Your task to perform on an android device: turn on data saver in the chrome app Image 0: 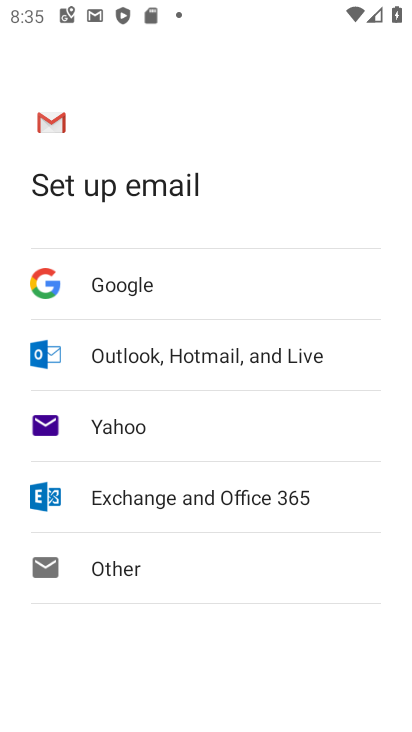
Step 0: press home button
Your task to perform on an android device: turn on data saver in the chrome app Image 1: 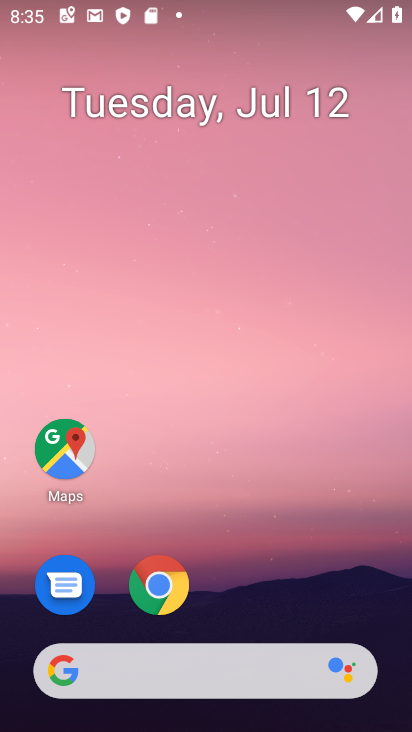
Step 1: click (163, 595)
Your task to perform on an android device: turn on data saver in the chrome app Image 2: 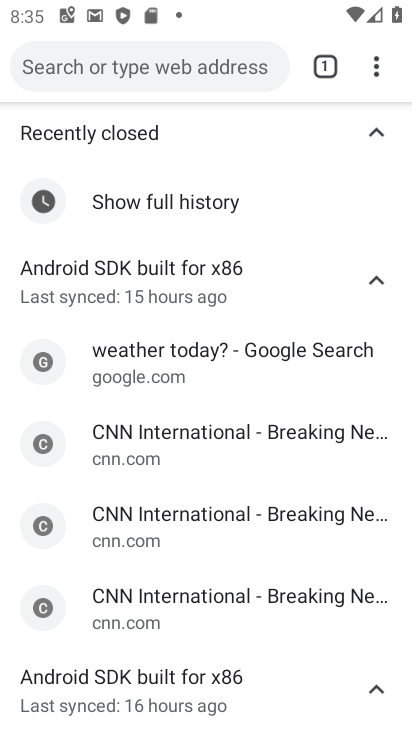
Step 2: click (372, 67)
Your task to perform on an android device: turn on data saver in the chrome app Image 3: 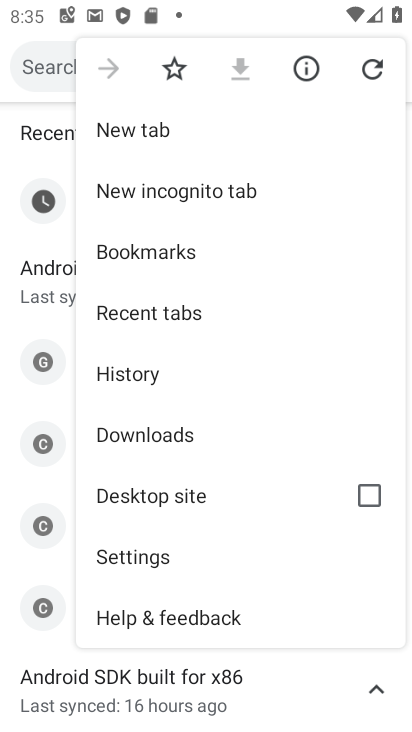
Step 3: click (152, 553)
Your task to perform on an android device: turn on data saver in the chrome app Image 4: 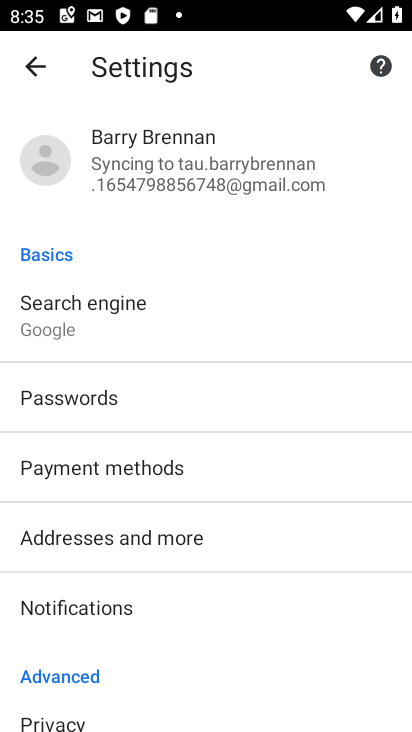
Step 4: drag from (203, 608) to (221, 44)
Your task to perform on an android device: turn on data saver in the chrome app Image 5: 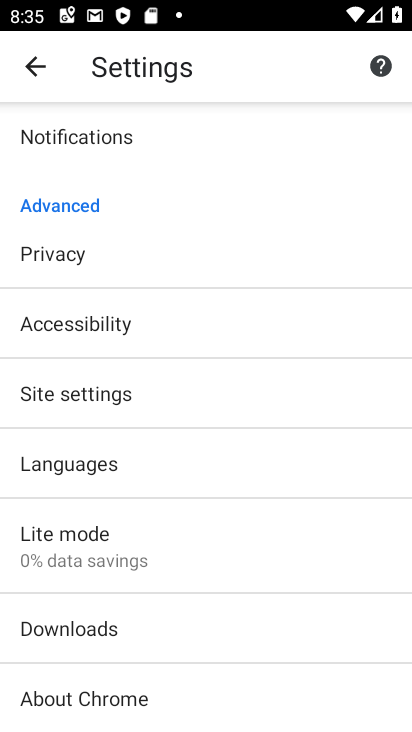
Step 5: click (115, 538)
Your task to perform on an android device: turn on data saver in the chrome app Image 6: 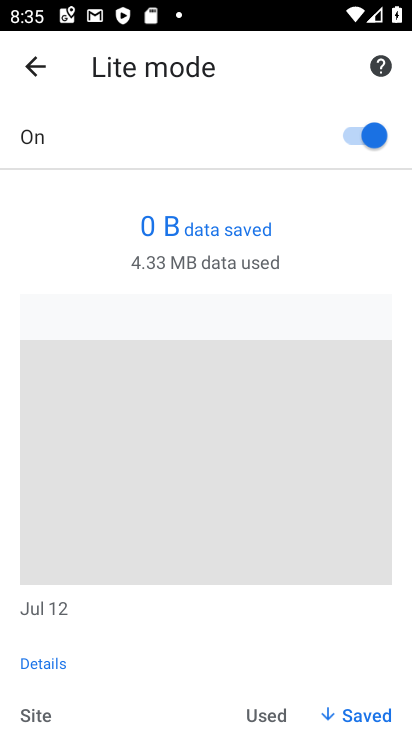
Step 6: task complete